Your task to perform on an android device: See recent photos Image 0: 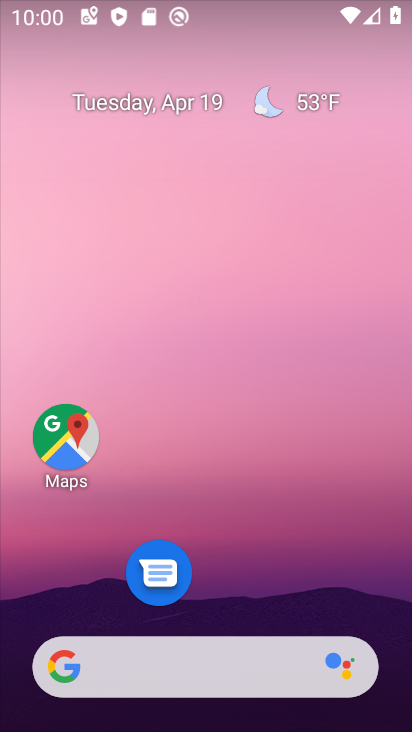
Step 0: drag from (214, 600) to (211, 103)
Your task to perform on an android device: See recent photos Image 1: 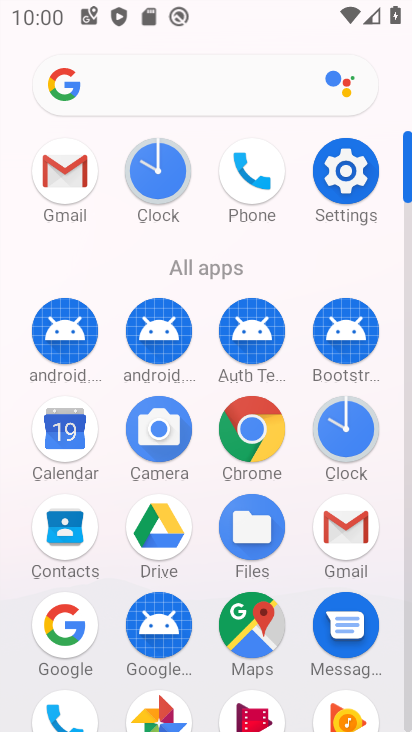
Step 1: drag from (206, 289) to (206, 223)
Your task to perform on an android device: See recent photos Image 2: 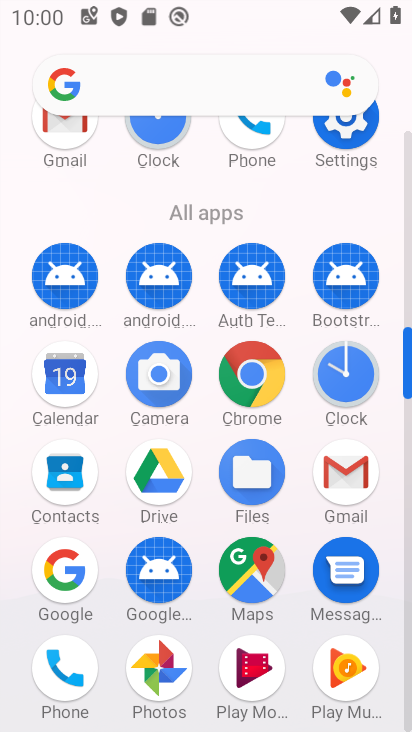
Step 2: click (152, 655)
Your task to perform on an android device: See recent photos Image 3: 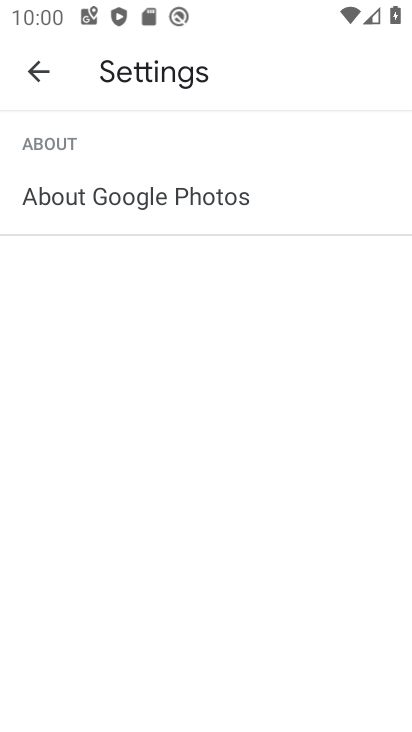
Step 3: click (43, 73)
Your task to perform on an android device: See recent photos Image 4: 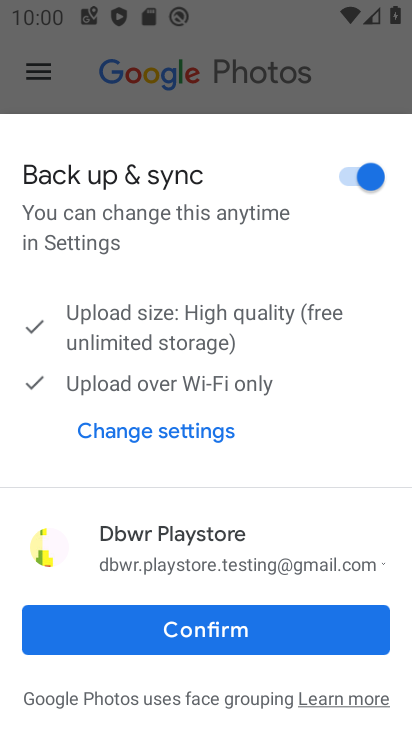
Step 4: click (240, 619)
Your task to perform on an android device: See recent photos Image 5: 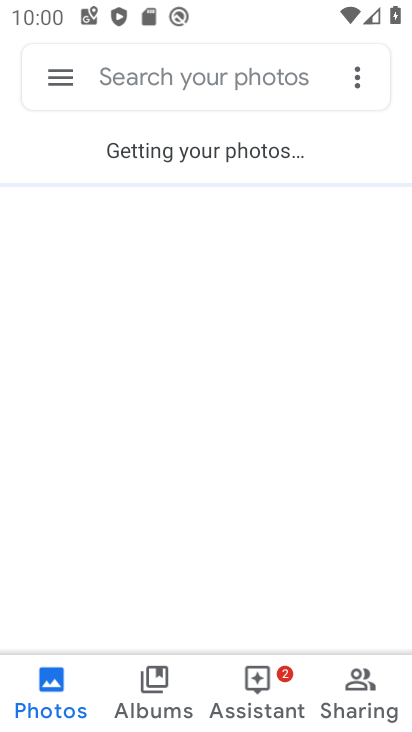
Step 5: task complete